Your task to perform on an android device: allow notifications from all sites in the chrome app Image 0: 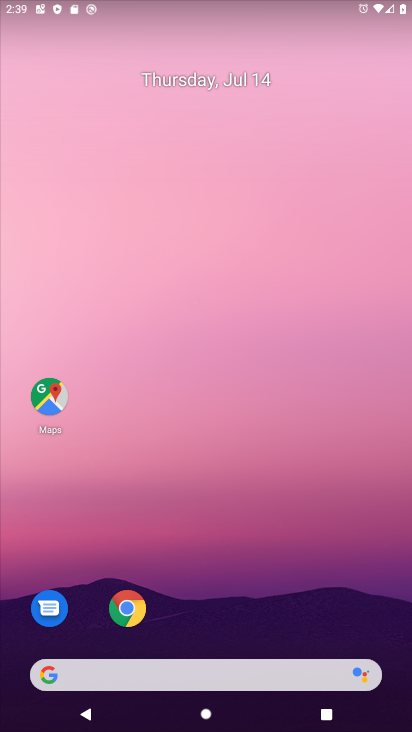
Step 0: drag from (230, 711) to (230, 175)
Your task to perform on an android device: allow notifications from all sites in the chrome app Image 1: 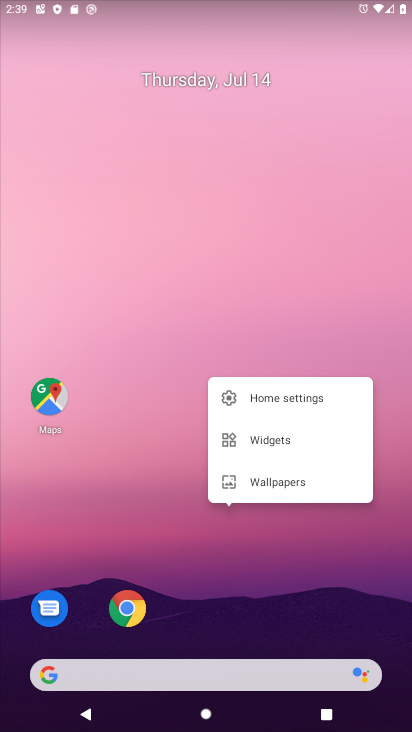
Step 1: click (277, 270)
Your task to perform on an android device: allow notifications from all sites in the chrome app Image 2: 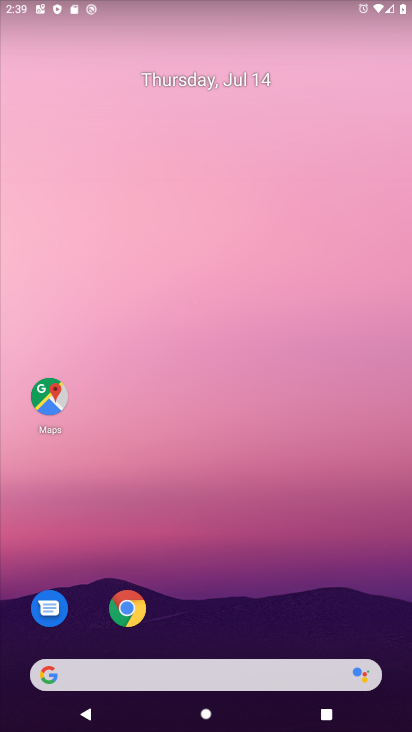
Step 2: drag from (231, 713) to (231, 219)
Your task to perform on an android device: allow notifications from all sites in the chrome app Image 3: 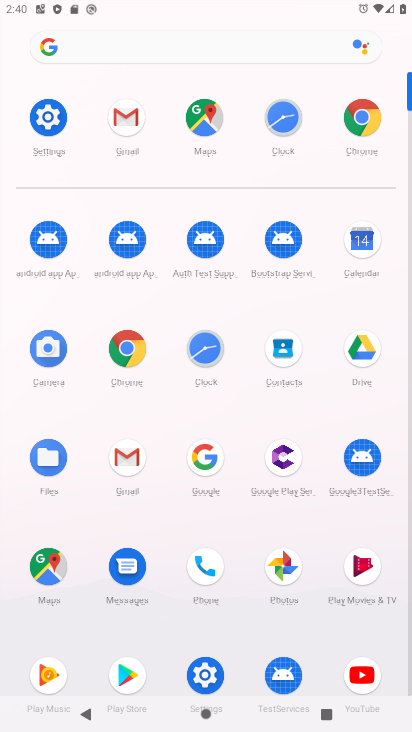
Step 3: click (367, 113)
Your task to perform on an android device: allow notifications from all sites in the chrome app Image 4: 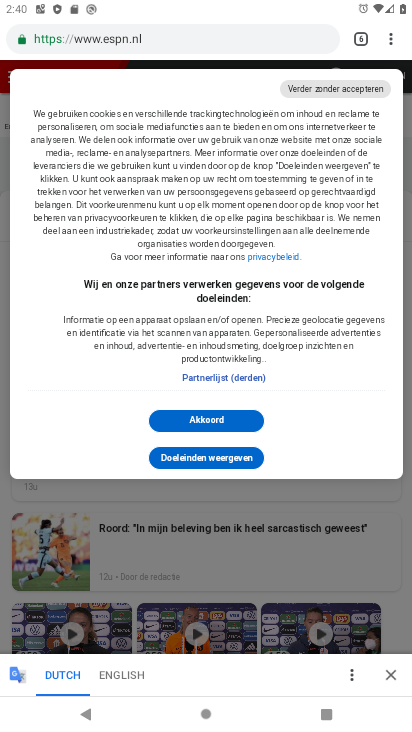
Step 4: click (393, 48)
Your task to perform on an android device: allow notifications from all sites in the chrome app Image 5: 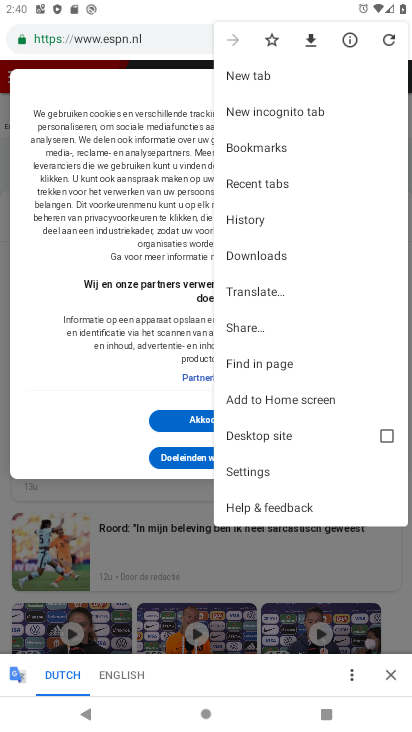
Step 5: click (255, 475)
Your task to perform on an android device: allow notifications from all sites in the chrome app Image 6: 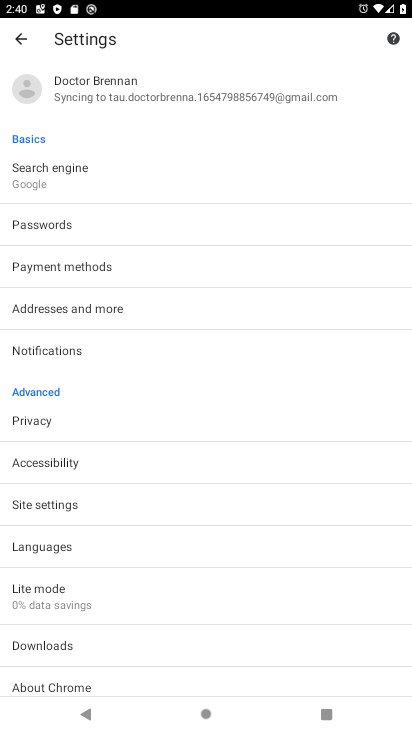
Step 6: click (65, 501)
Your task to perform on an android device: allow notifications from all sites in the chrome app Image 7: 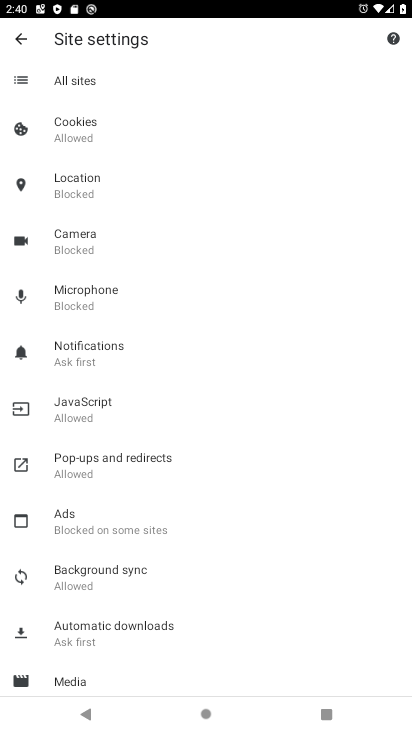
Step 7: click (86, 342)
Your task to perform on an android device: allow notifications from all sites in the chrome app Image 8: 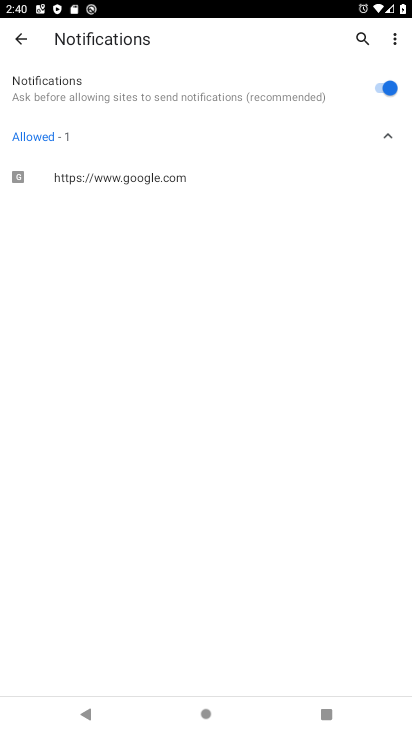
Step 8: task complete